Your task to perform on an android device: Open the phone app and click the voicemail tab. Image 0: 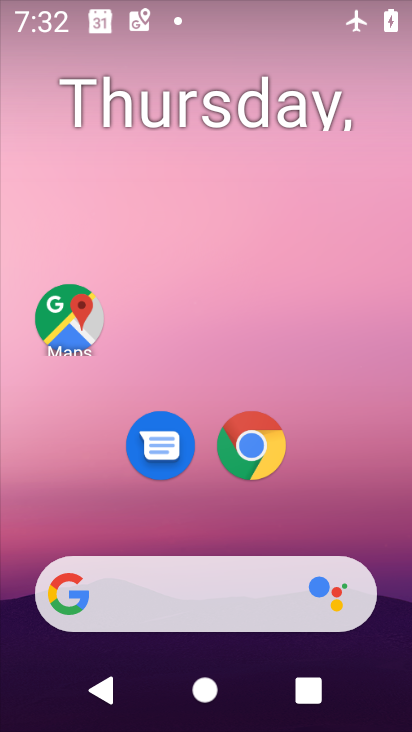
Step 0: drag from (395, 655) to (319, 82)
Your task to perform on an android device: Open the phone app and click the voicemail tab. Image 1: 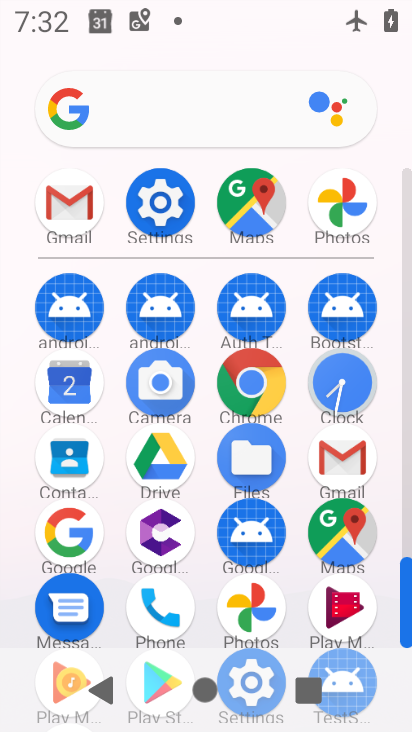
Step 1: click (153, 599)
Your task to perform on an android device: Open the phone app and click the voicemail tab. Image 2: 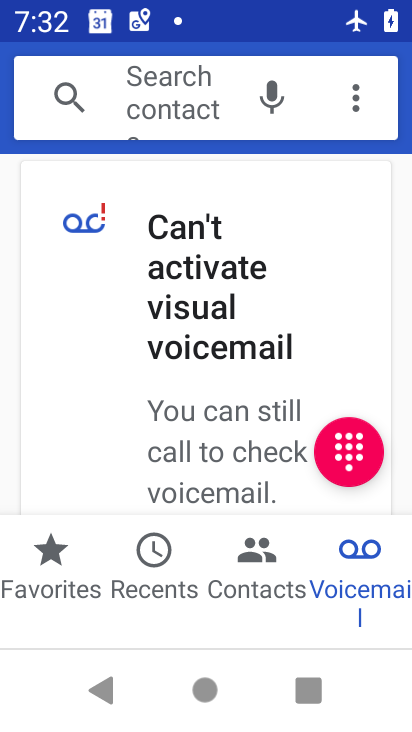
Step 2: task complete